Your task to perform on an android device: uninstall "ZOOM Cloud Meetings" Image 0: 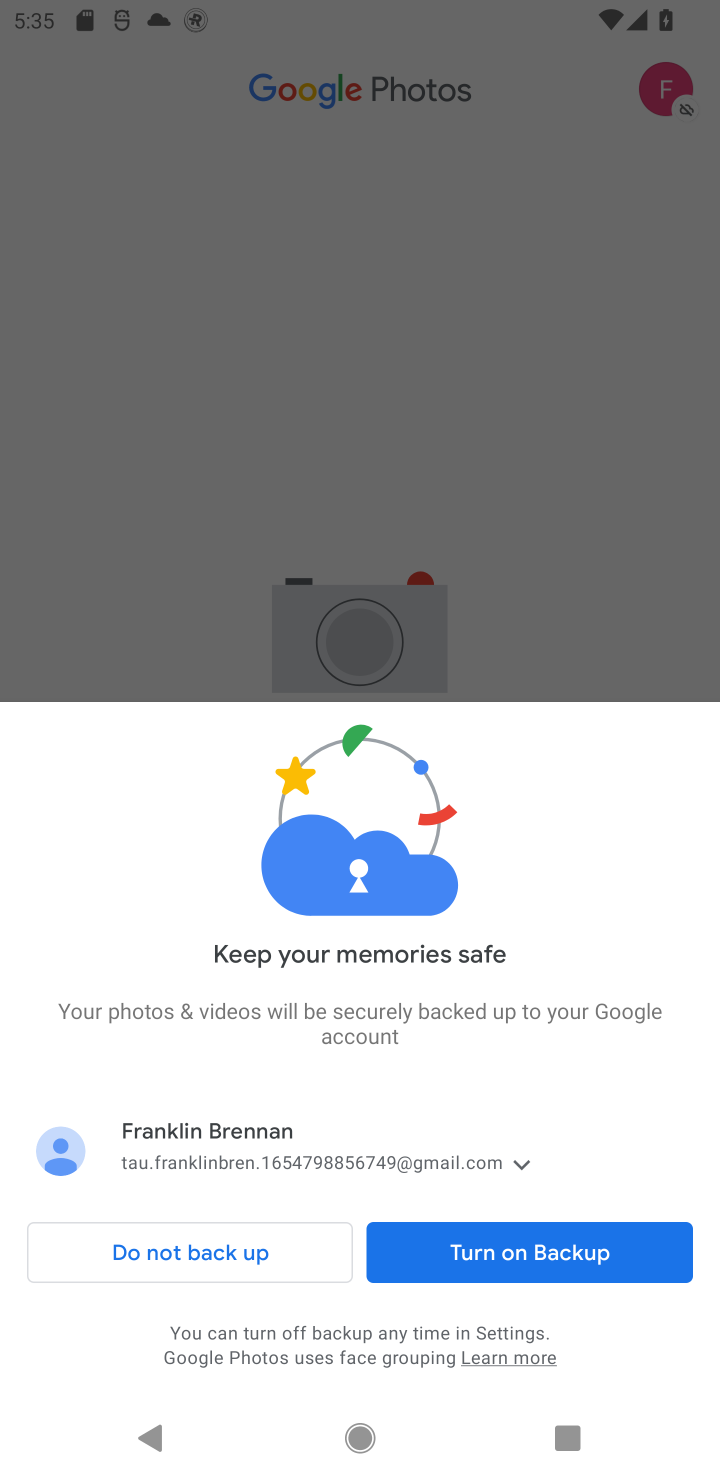
Step 0: press home button
Your task to perform on an android device: uninstall "ZOOM Cloud Meetings" Image 1: 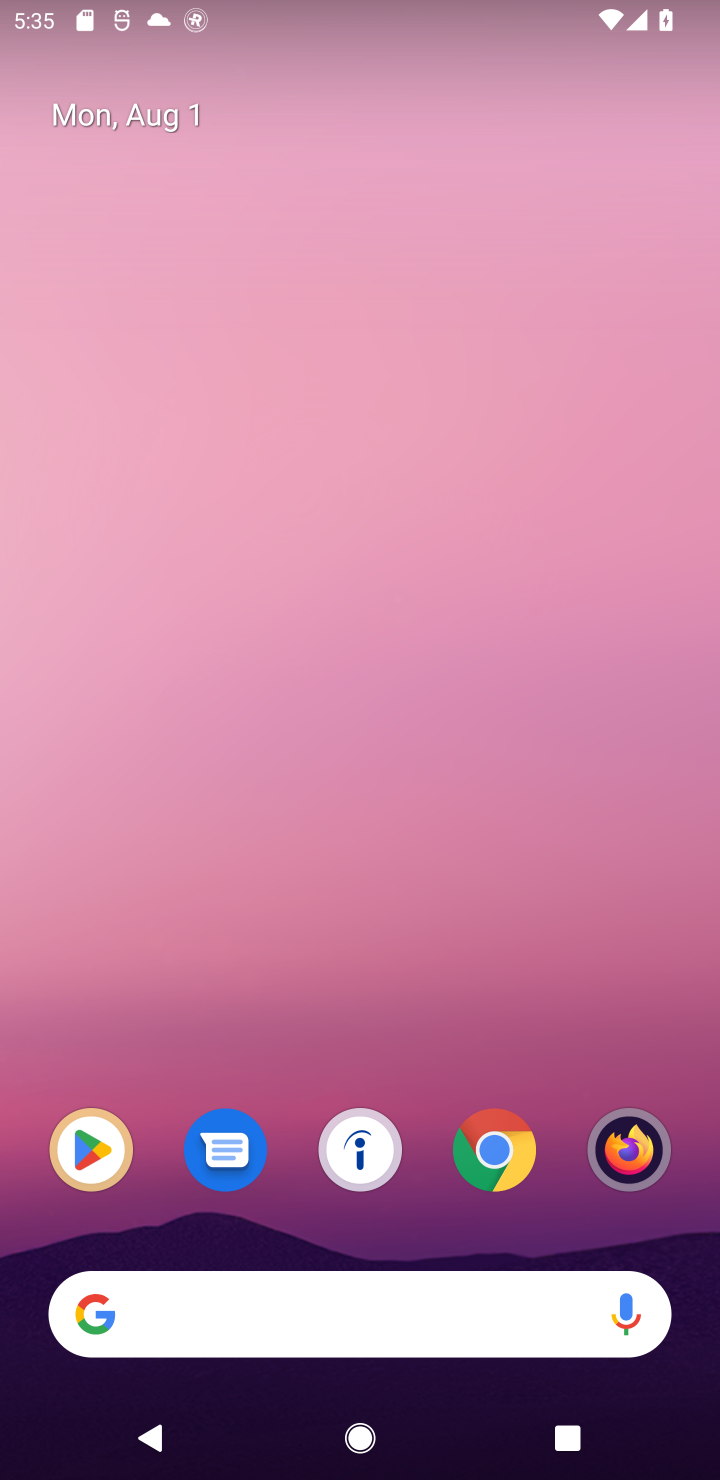
Step 1: click (112, 1169)
Your task to perform on an android device: uninstall "ZOOM Cloud Meetings" Image 2: 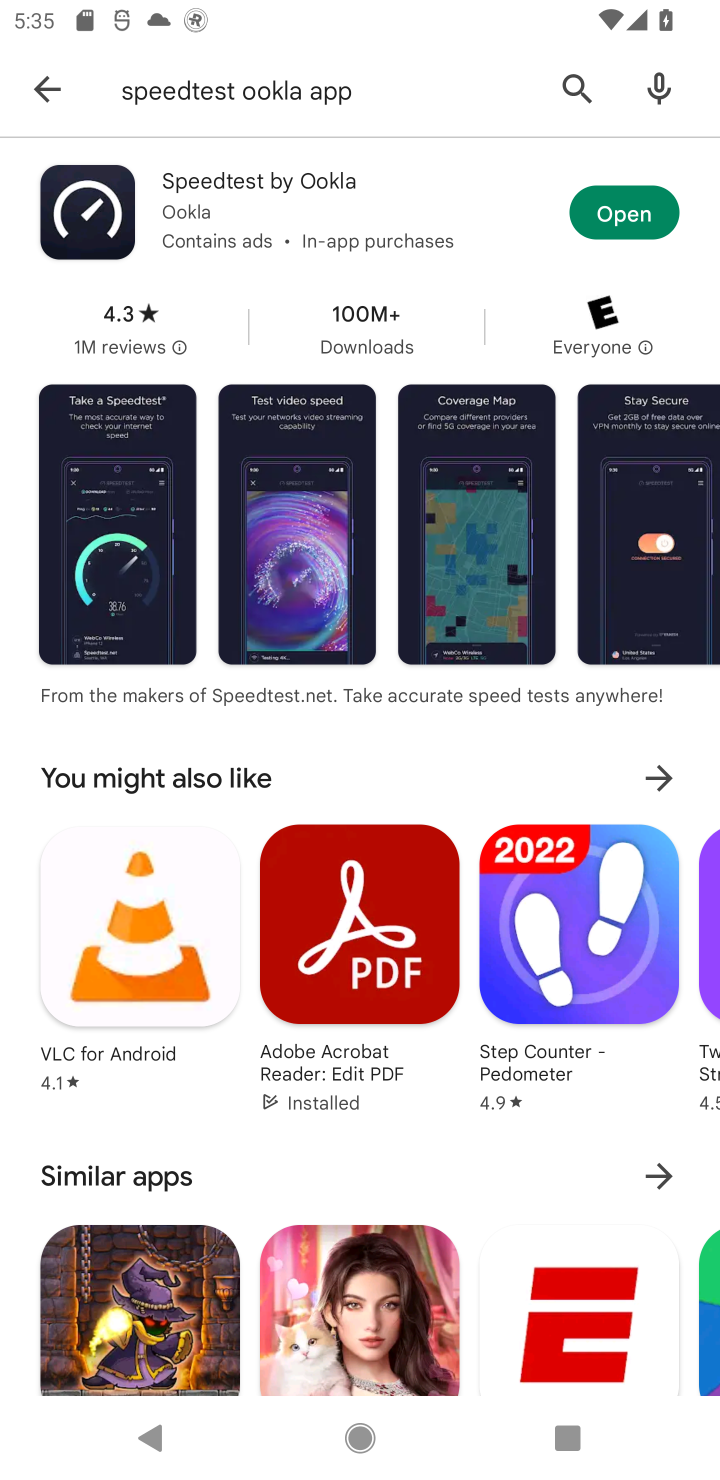
Step 2: press home button
Your task to perform on an android device: uninstall "ZOOM Cloud Meetings" Image 3: 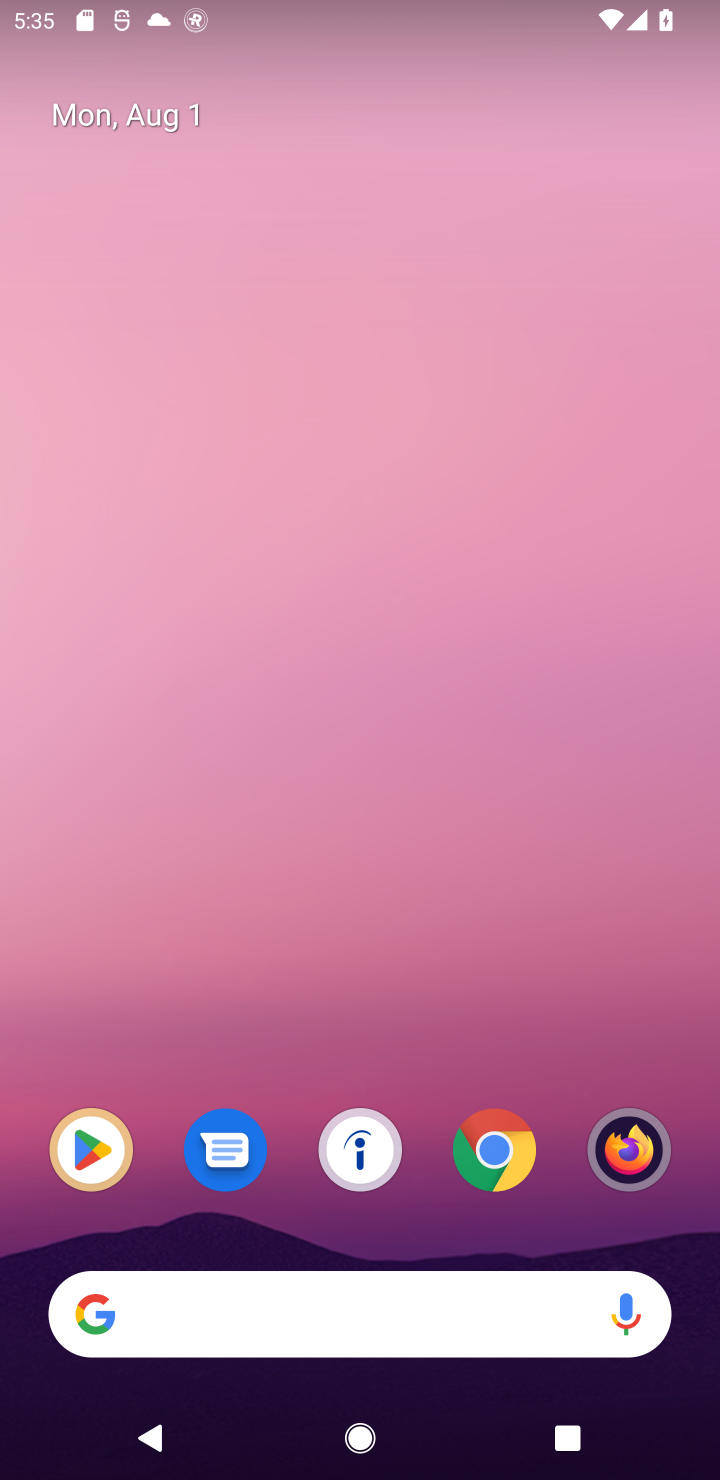
Step 3: click (344, 1304)
Your task to perform on an android device: uninstall "ZOOM Cloud Meetings" Image 4: 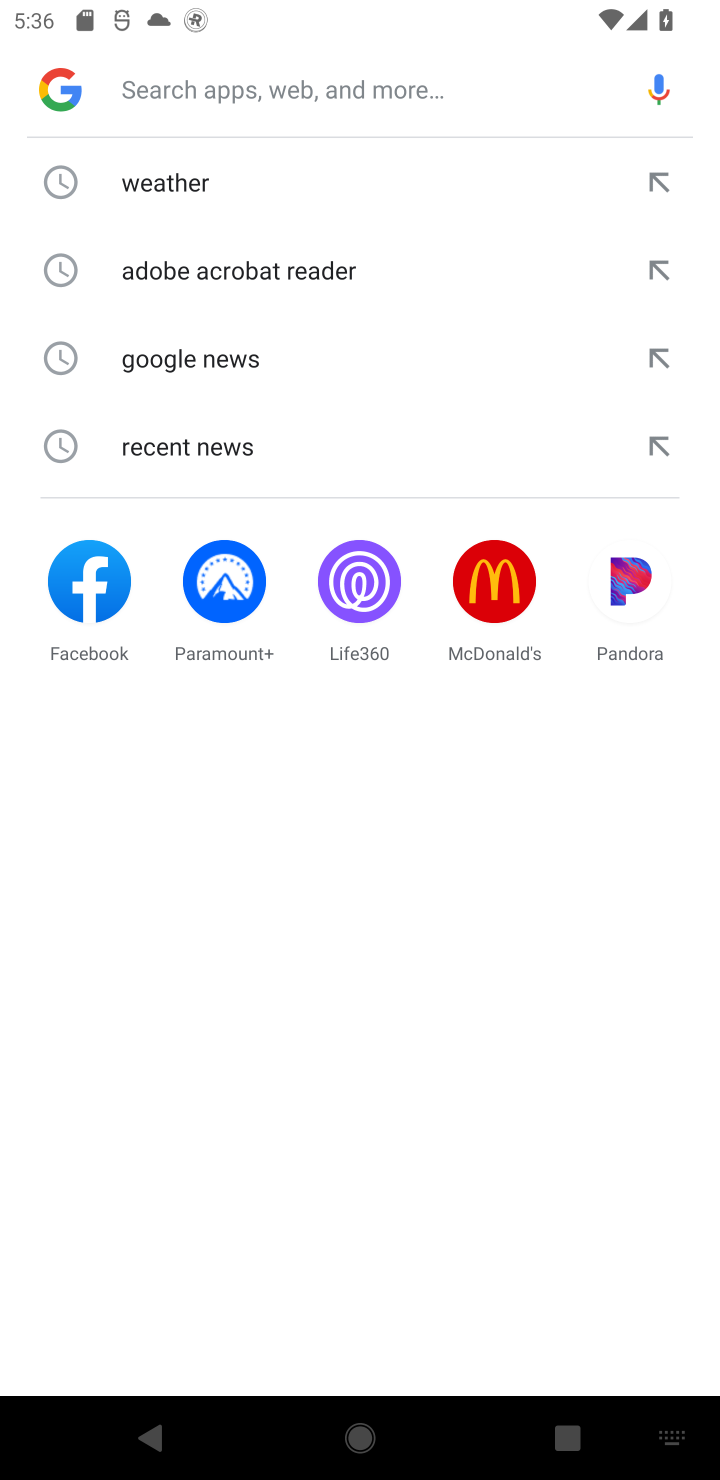
Step 4: type "zoom"
Your task to perform on an android device: uninstall "ZOOM Cloud Meetings" Image 5: 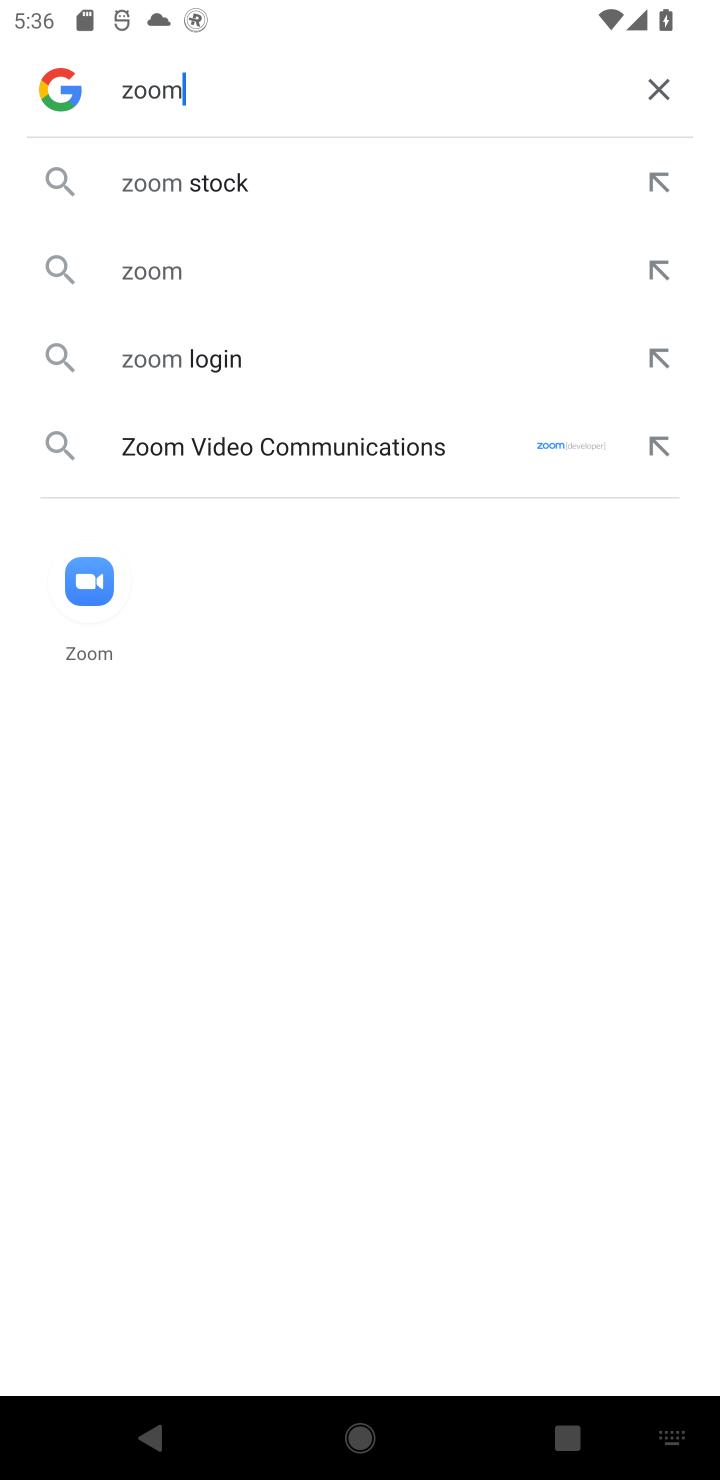
Step 5: click (187, 275)
Your task to perform on an android device: uninstall "ZOOM Cloud Meetings" Image 6: 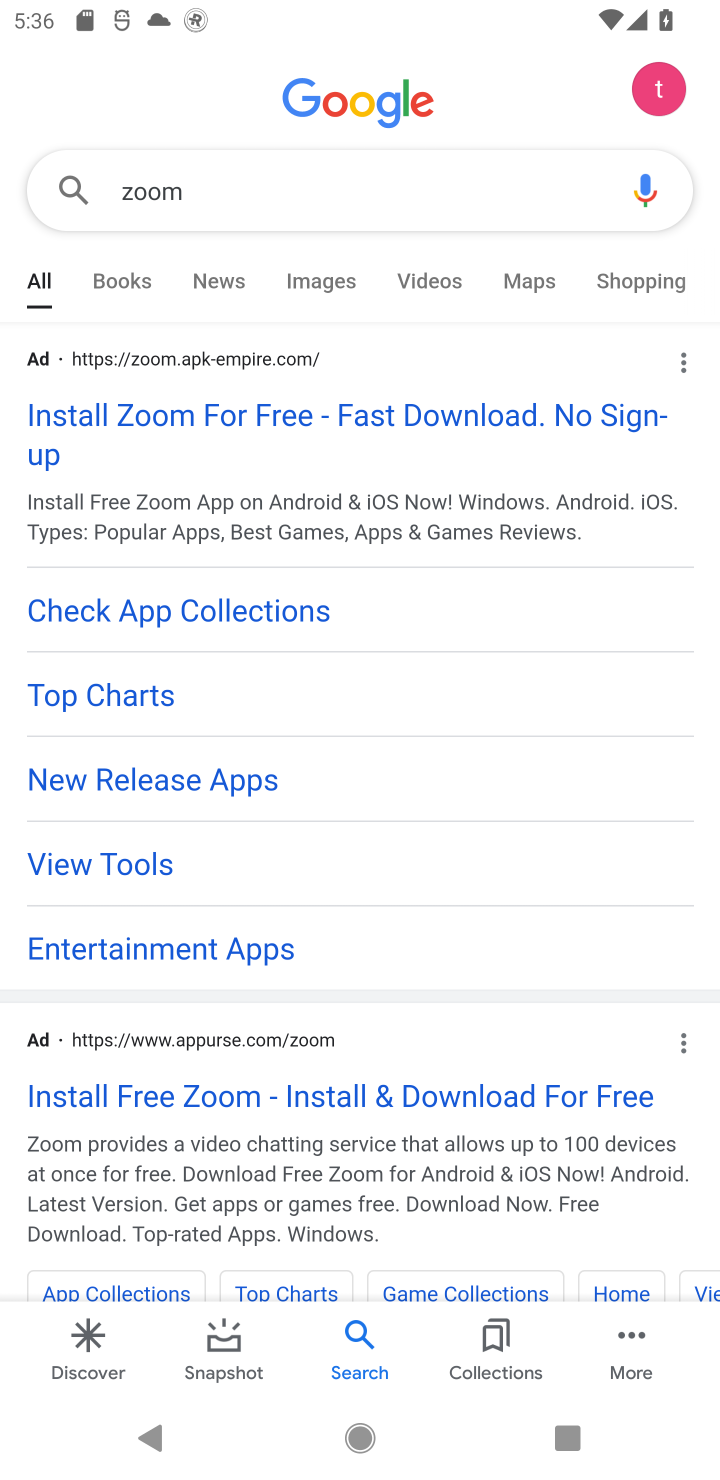
Step 6: task complete